Your task to perform on an android device: Add "logitech g pro" to the cart on bestbuy.com, then select checkout. Image 0: 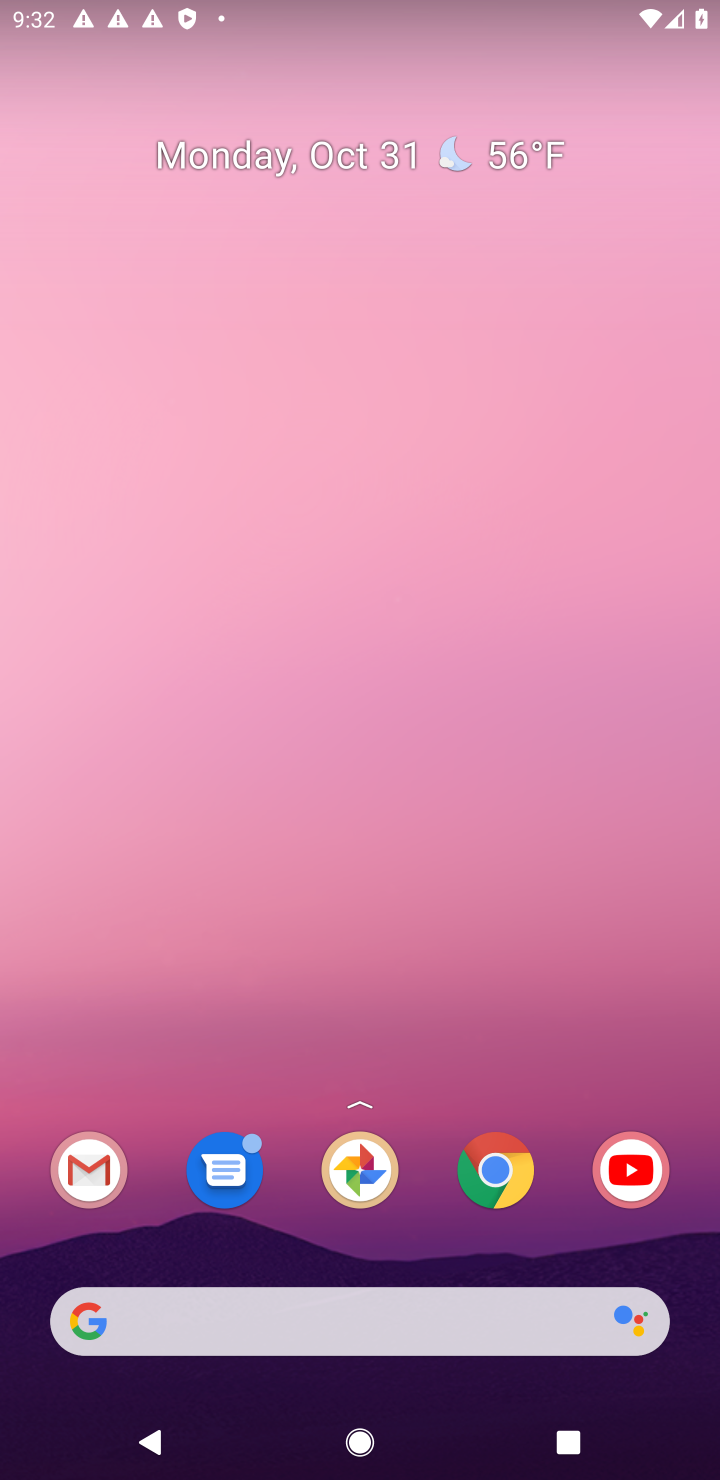
Step 0: drag from (365, 501) to (394, 423)
Your task to perform on an android device: Add "logitech g pro" to the cart on bestbuy.com, then select checkout. Image 1: 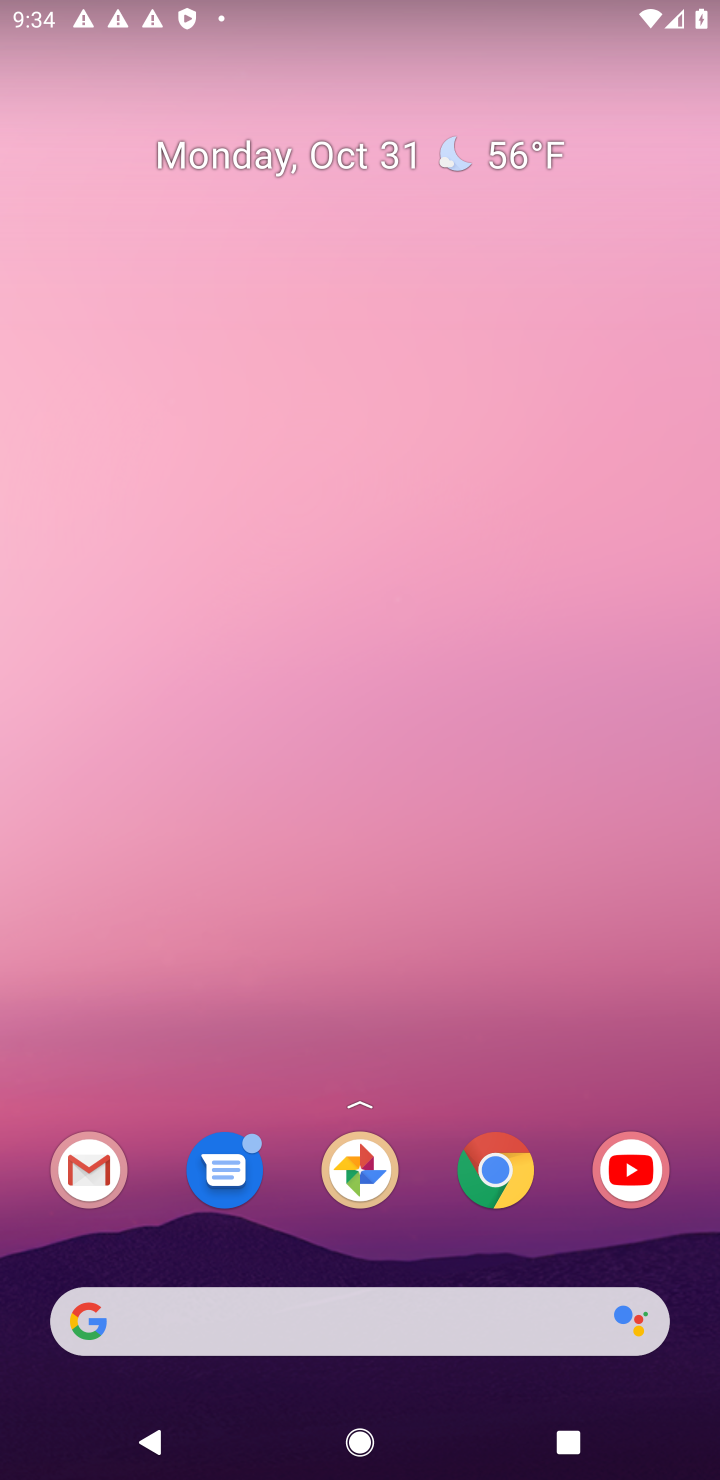
Step 1: click (254, 1329)
Your task to perform on an android device: Add "logitech g pro" to the cart on bestbuy.com, then select checkout. Image 2: 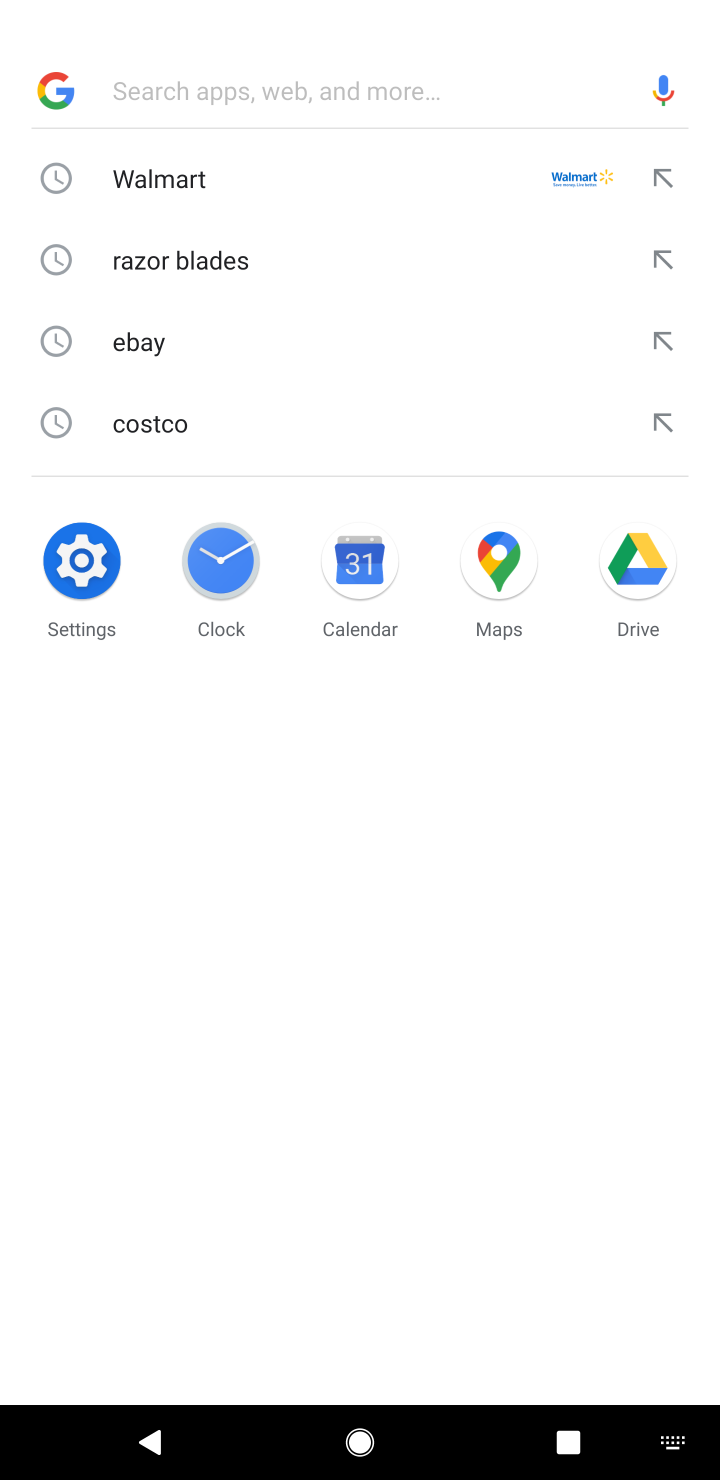
Step 2: type " bestbuy.com"
Your task to perform on an android device: Add "logitech g pro" to the cart on bestbuy.com, then select checkout. Image 3: 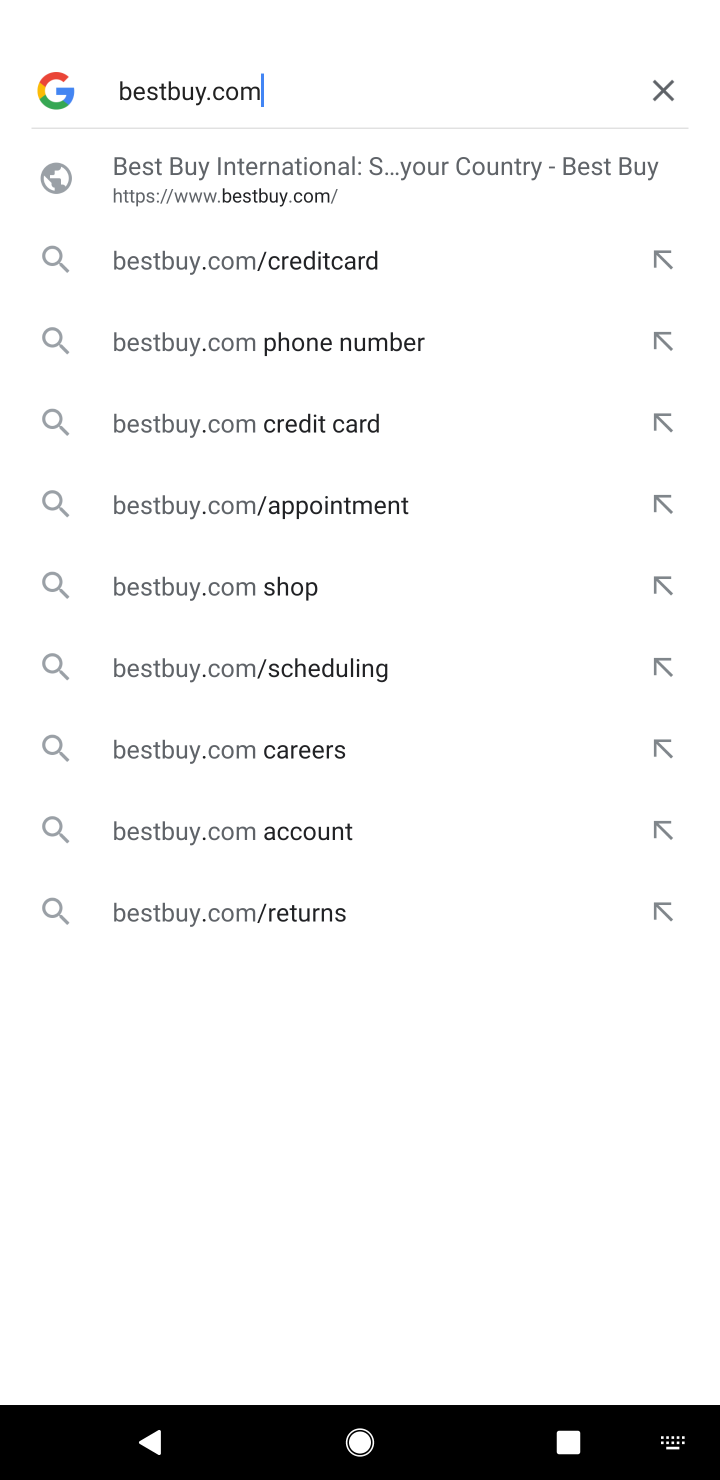
Step 3: click (255, 186)
Your task to perform on an android device: Add "logitech g pro" to the cart on bestbuy.com, then select checkout. Image 4: 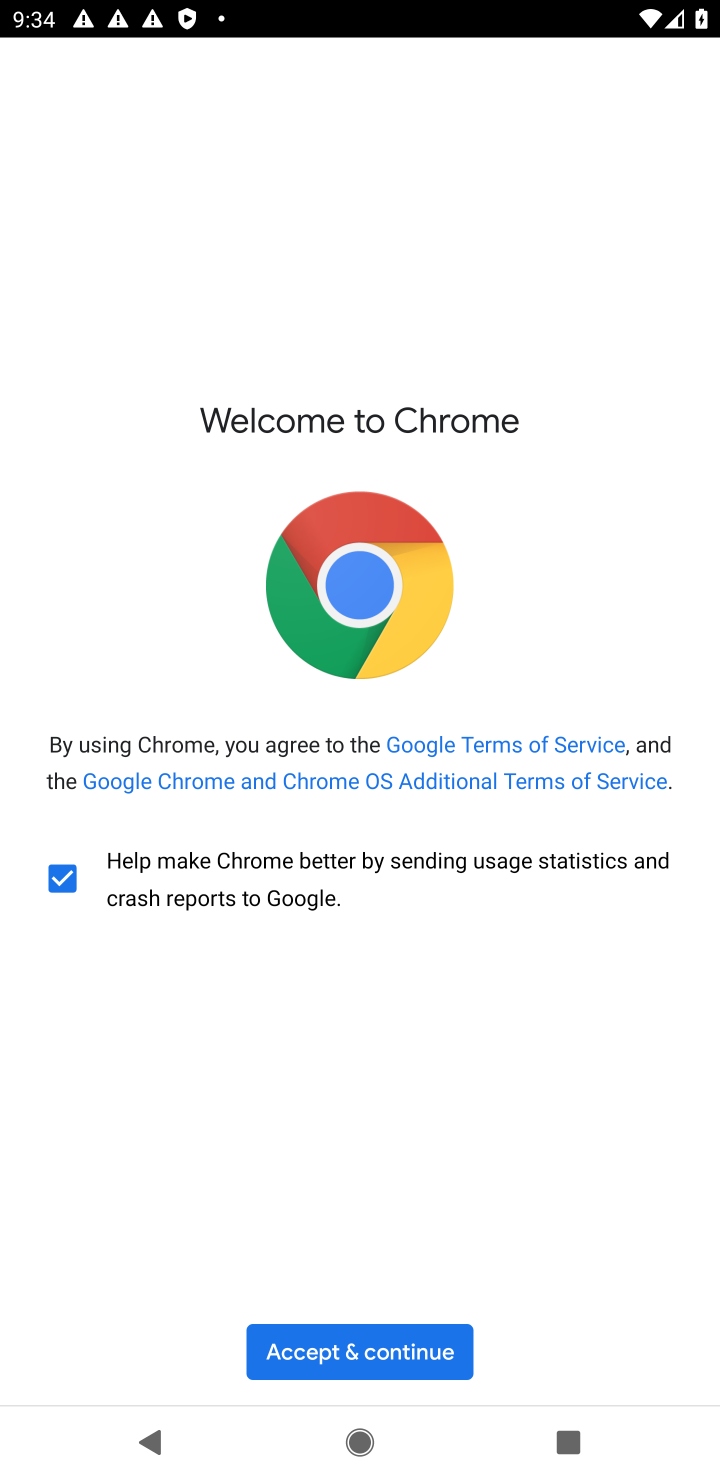
Step 4: click (309, 1350)
Your task to perform on an android device: Add "logitech g pro" to the cart on bestbuy.com, then select checkout. Image 5: 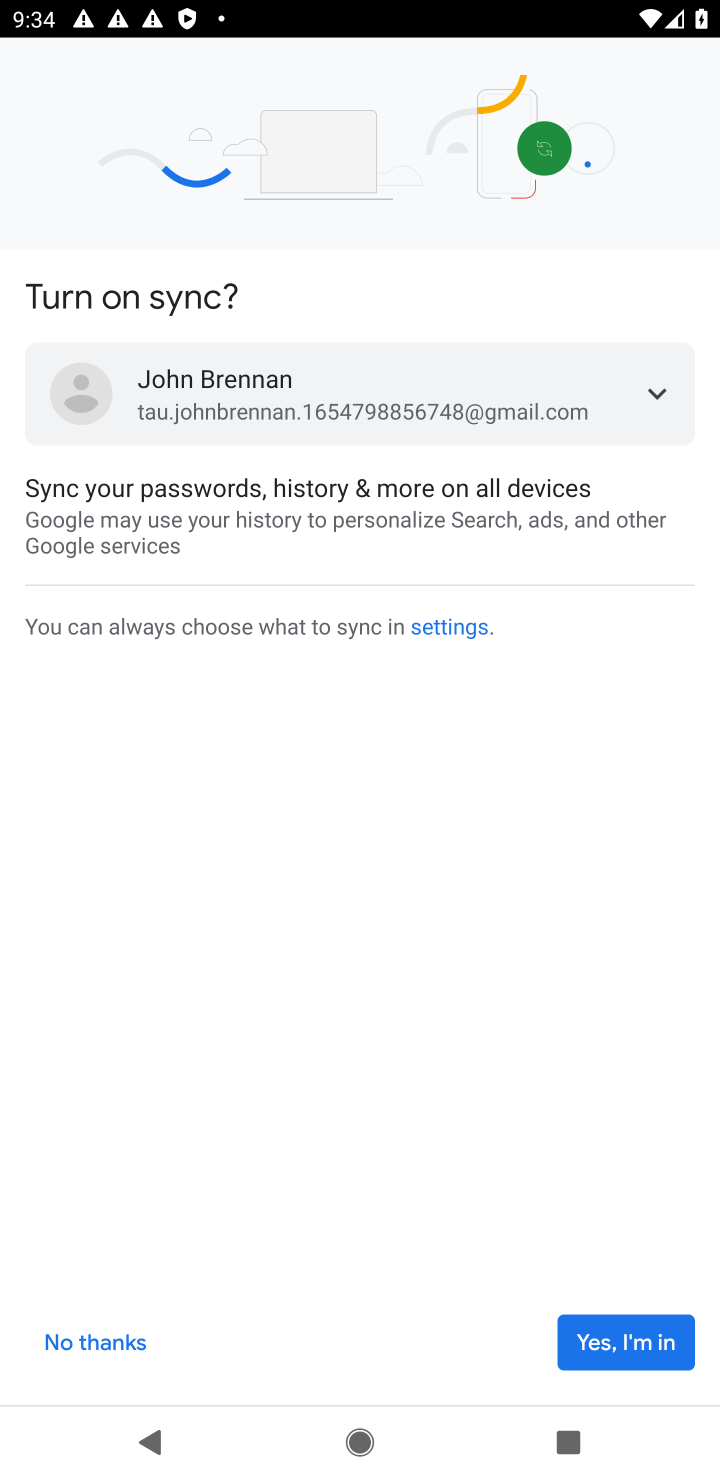
Step 5: click (597, 1320)
Your task to perform on an android device: Add "logitech g pro" to the cart on bestbuy.com, then select checkout. Image 6: 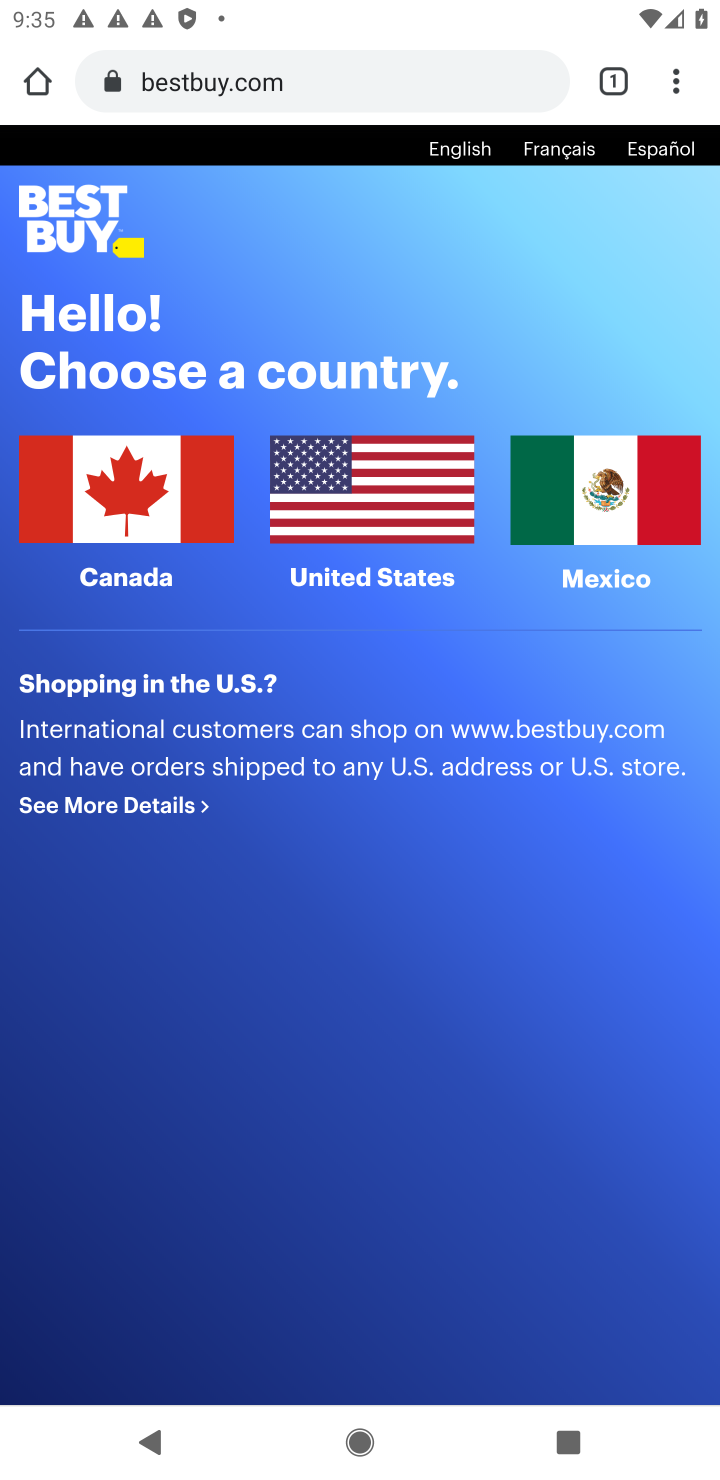
Step 6: click (312, 499)
Your task to perform on an android device: Add "logitech g pro" to the cart on bestbuy.com, then select checkout. Image 7: 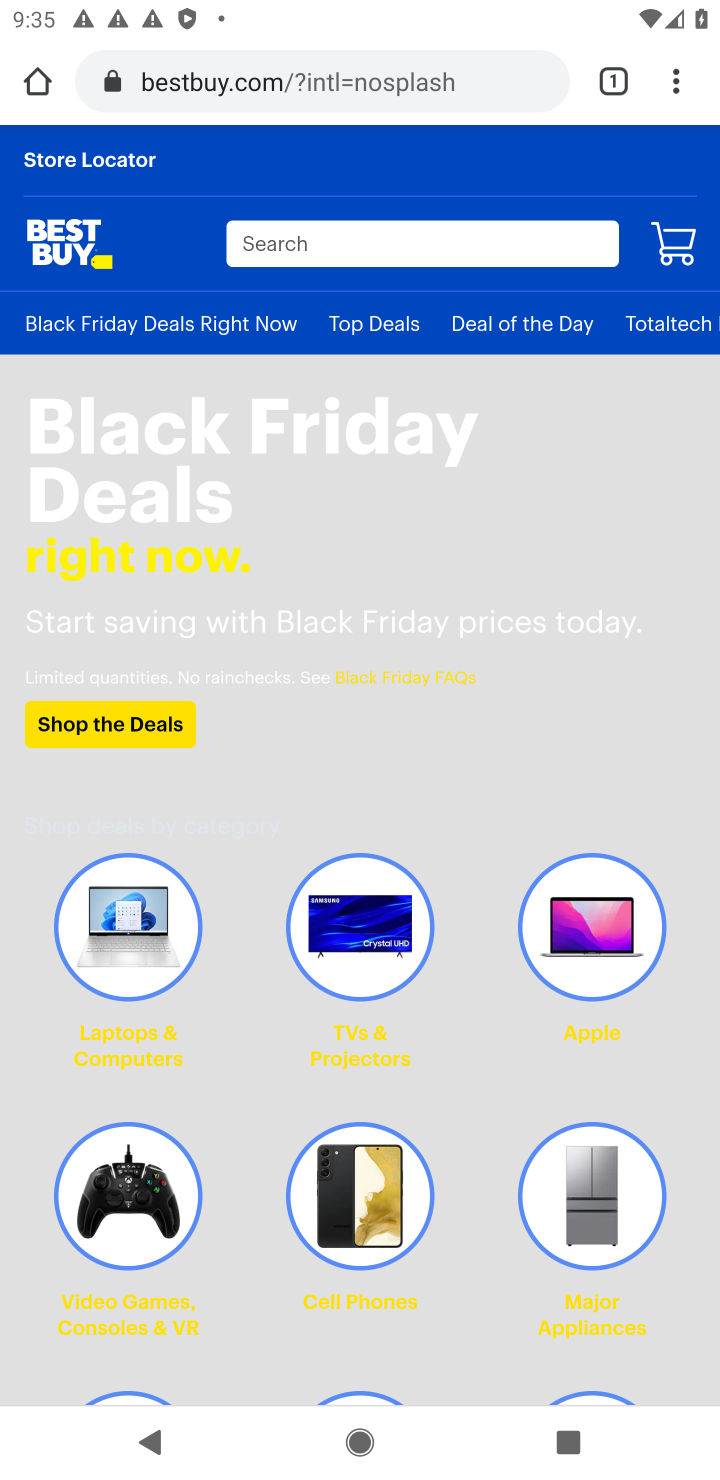
Step 7: click (410, 243)
Your task to perform on an android device: Add "logitech g pro" to the cart on bestbuy.com, then select checkout. Image 8: 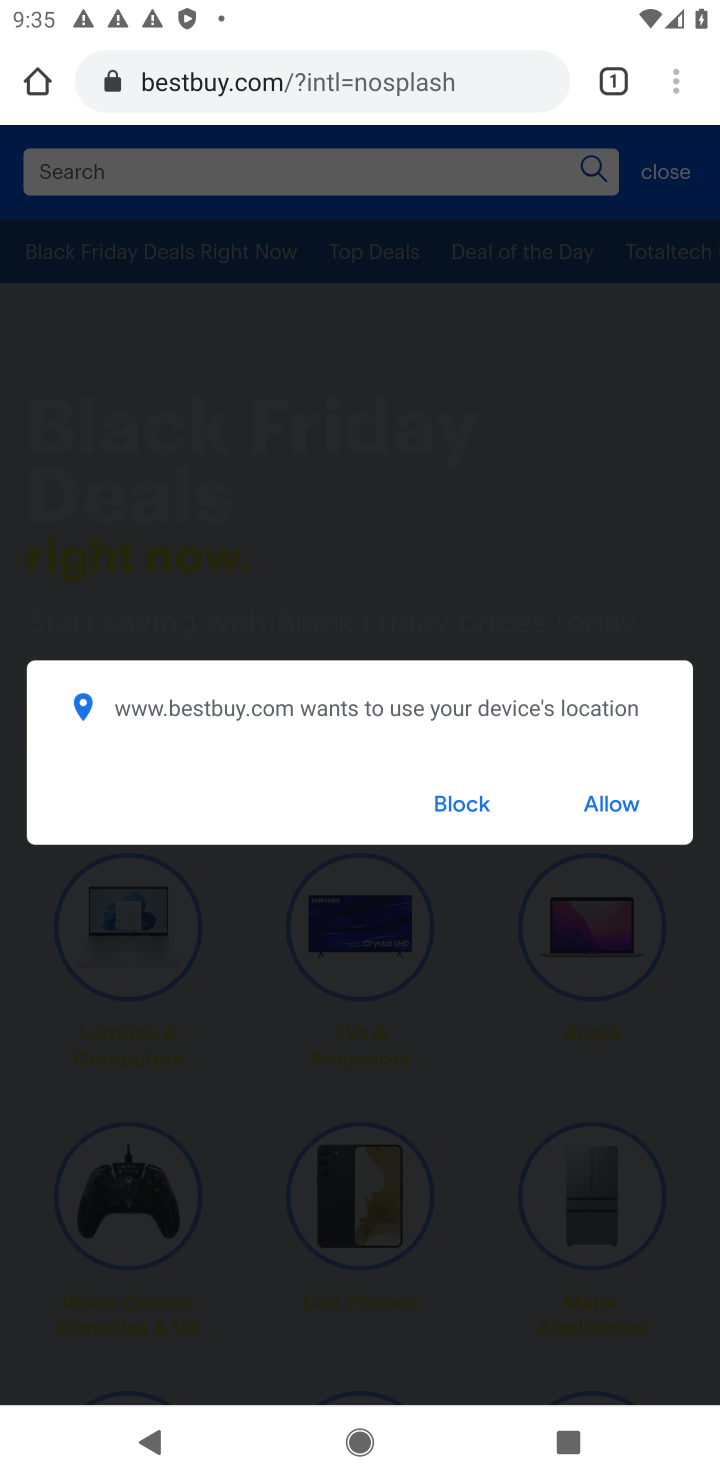
Step 8: click (456, 793)
Your task to perform on an android device: Add "logitech g pro" to the cart on bestbuy.com, then select checkout. Image 9: 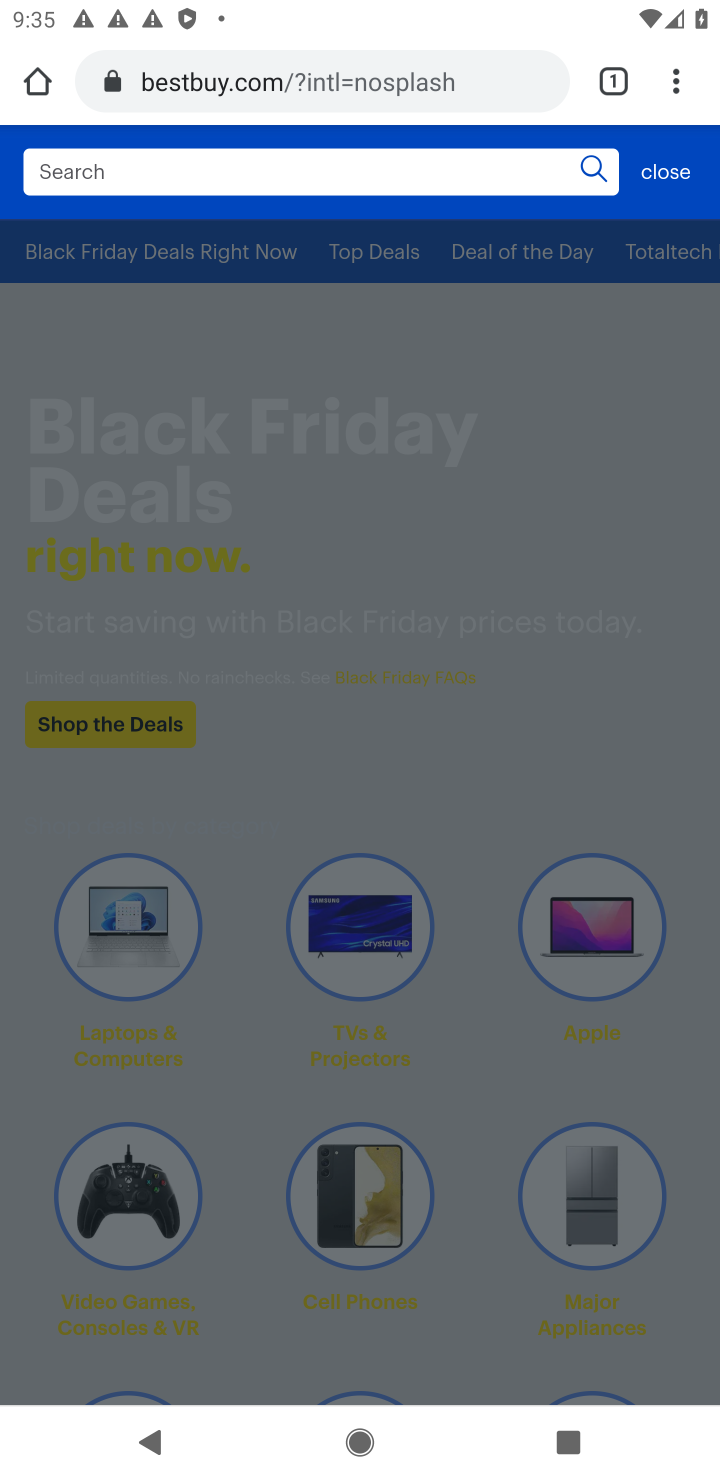
Step 9: click (343, 177)
Your task to perform on an android device: Add "logitech g pro" to the cart on bestbuy.com, then select checkout. Image 10: 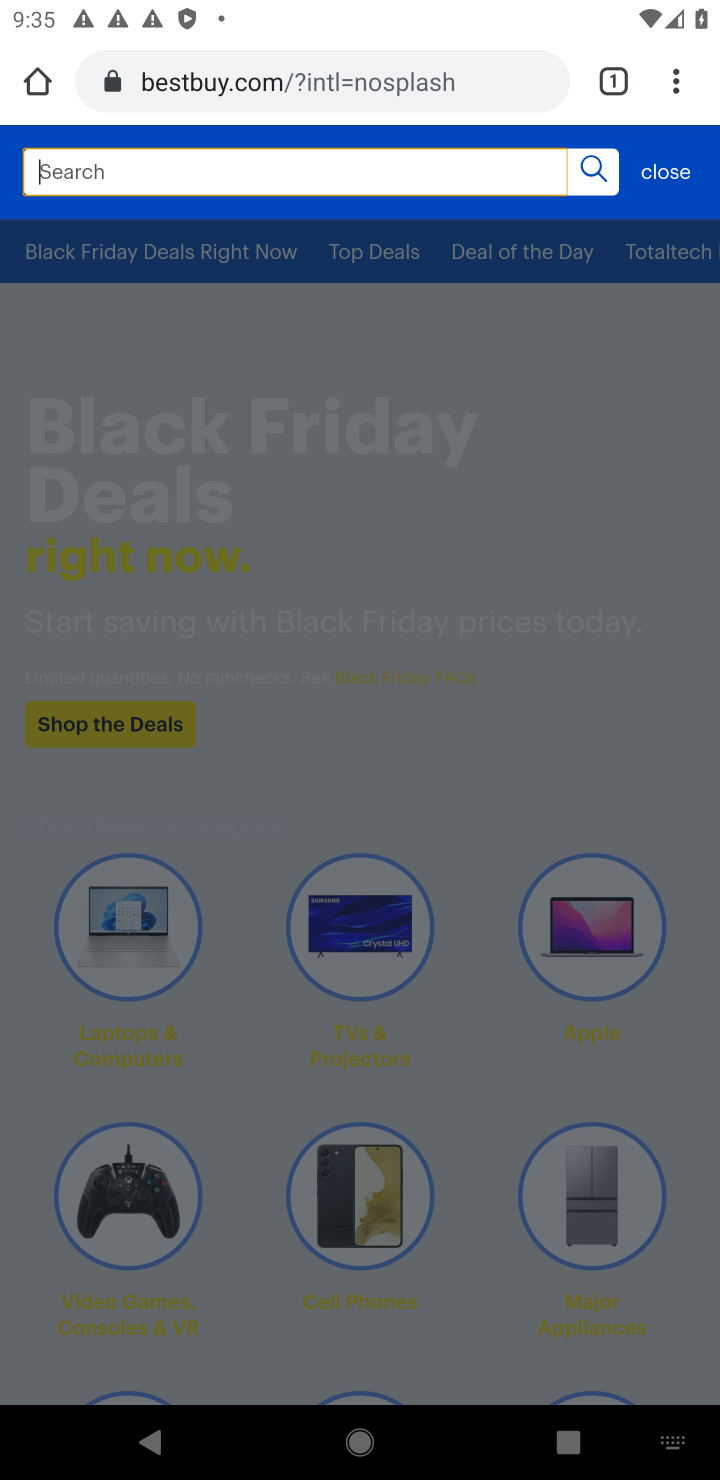
Step 10: type "logitech g pro"
Your task to perform on an android device: Add "logitech g pro" to the cart on bestbuy.com, then select checkout. Image 11: 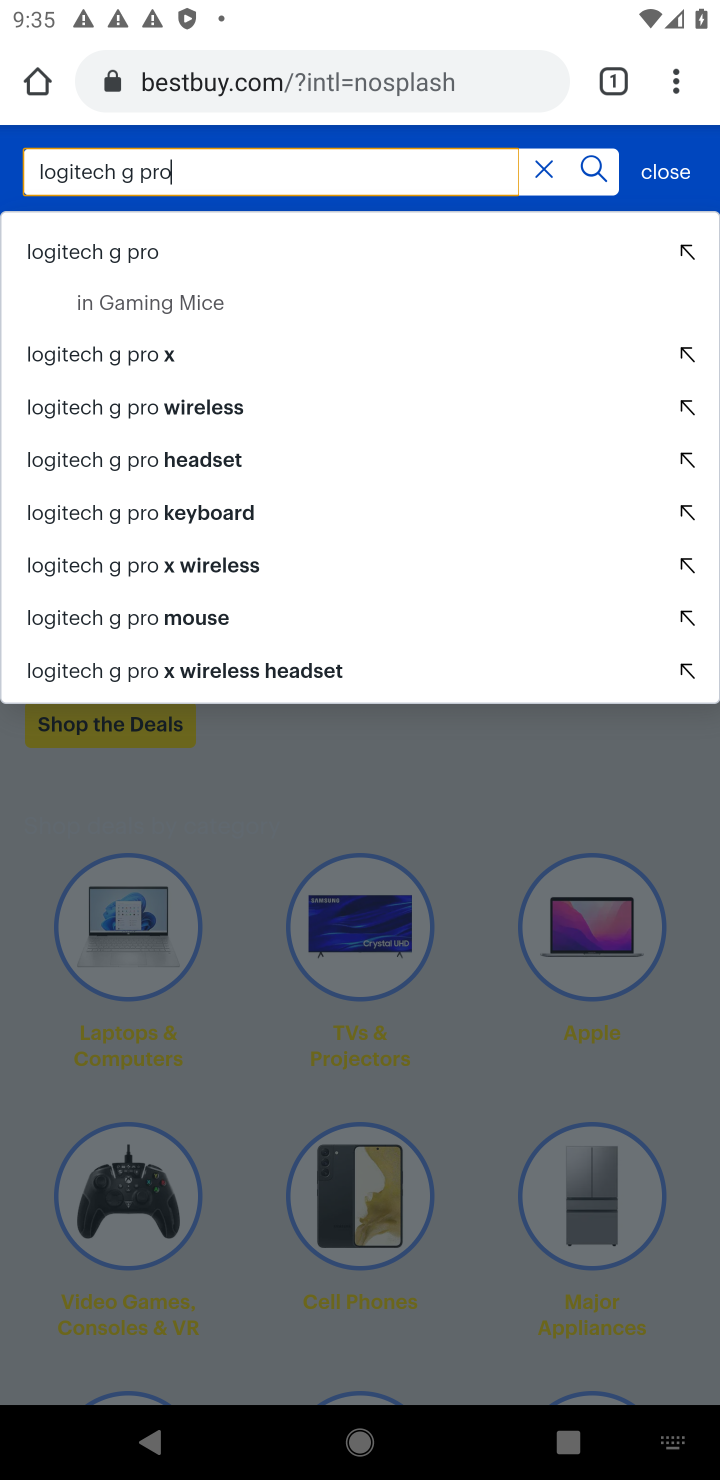
Step 11: click (74, 260)
Your task to perform on an android device: Add "logitech g pro" to the cart on bestbuy.com, then select checkout. Image 12: 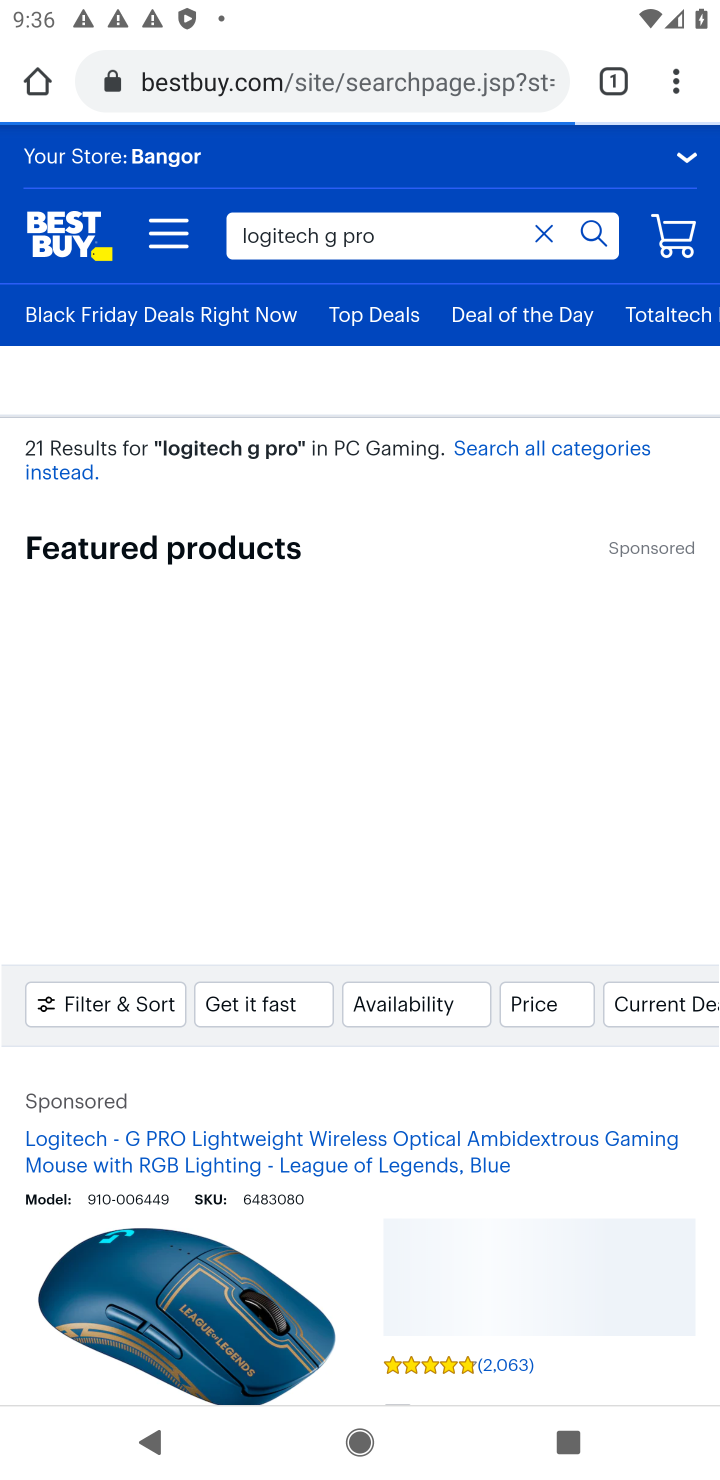
Step 12: click (163, 1366)
Your task to perform on an android device: Add "logitech g pro" to the cart on bestbuy.com, then select checkout. Image 13: 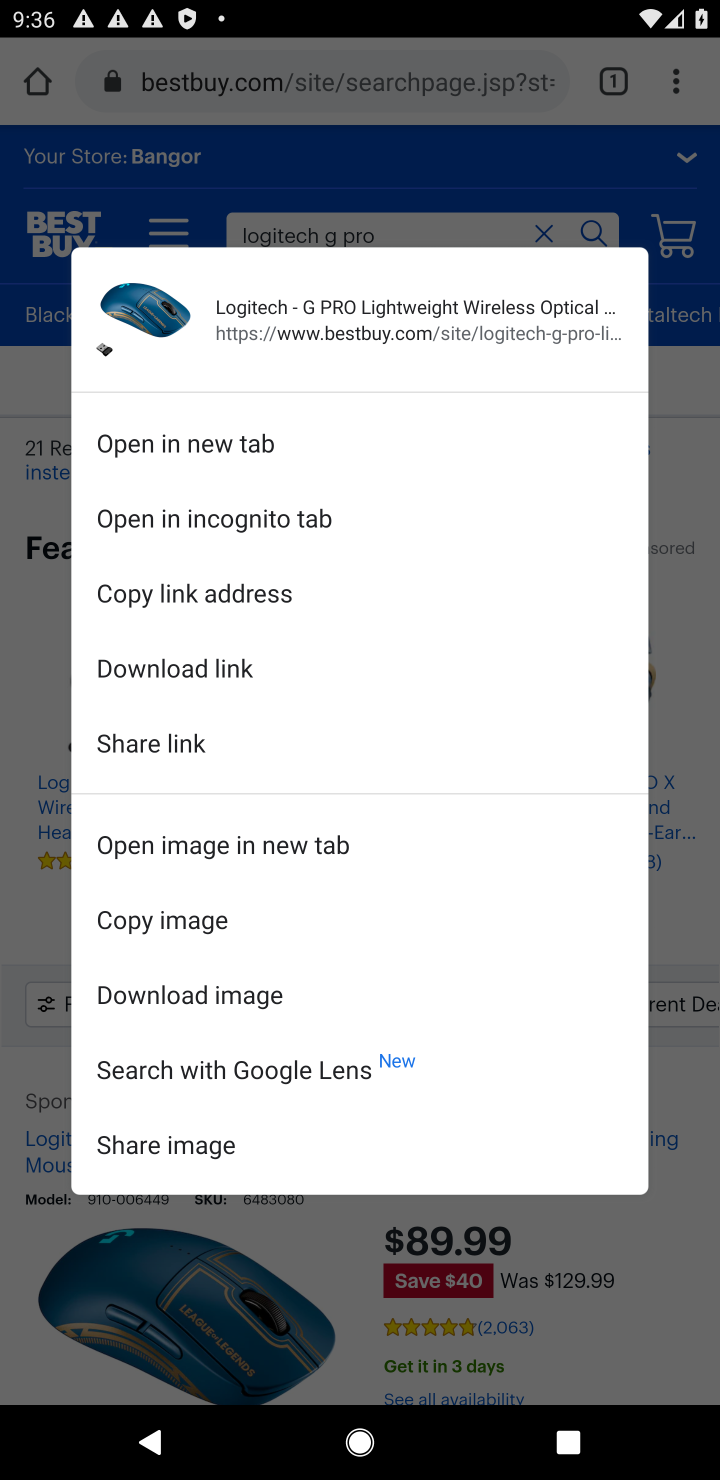
Step 13: click (218, 1207)
Your task to perform on an android device: Add "logitech g pro" to the cart on bestbuy.com, then select checkout. Image 14: 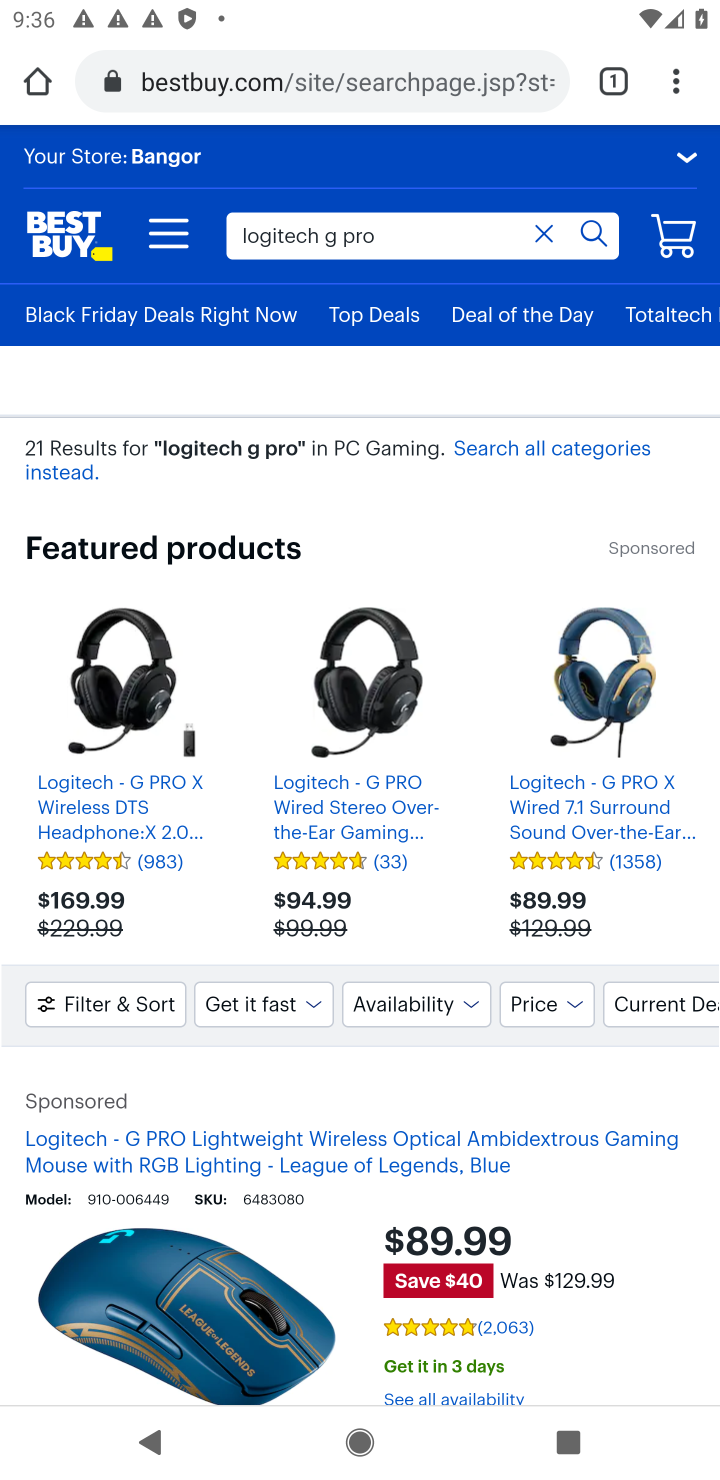
Step 14: click (106, 802)
Your task to perform on an android device: Add "logitech g pro" to the cart on bestbuy.com, then select checkout. Image 15: 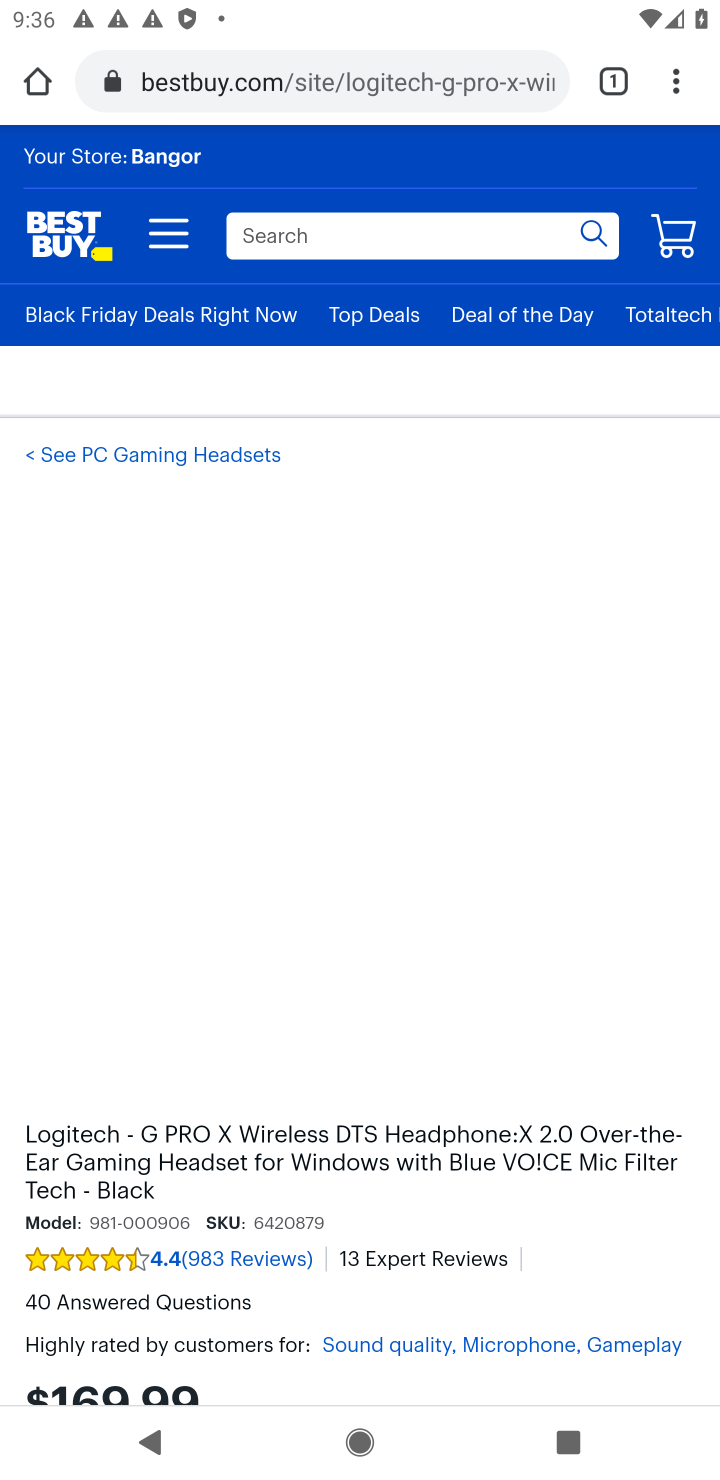
Step 15: drag from (184, 1169) to (268, 513)
Your task to perform on an android device: Add "logitech g pro" to the cart on bestbuy.com, then select checkout. Image 16: 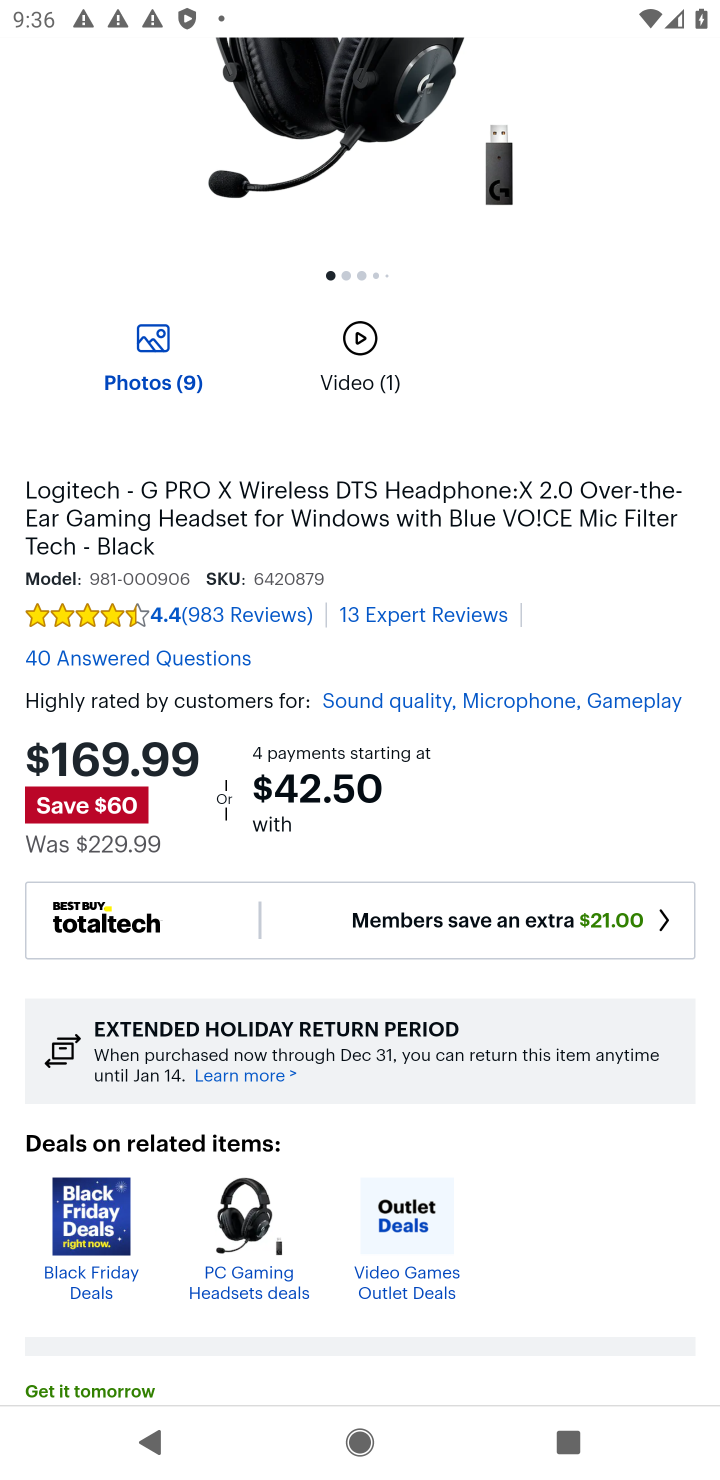
Step 16: drag from (187, 950) to (318, 567)
Your task to perform on an android device: Add "logitech g pro" to the cart on bestbuy.com, then select checkout. Image 17: 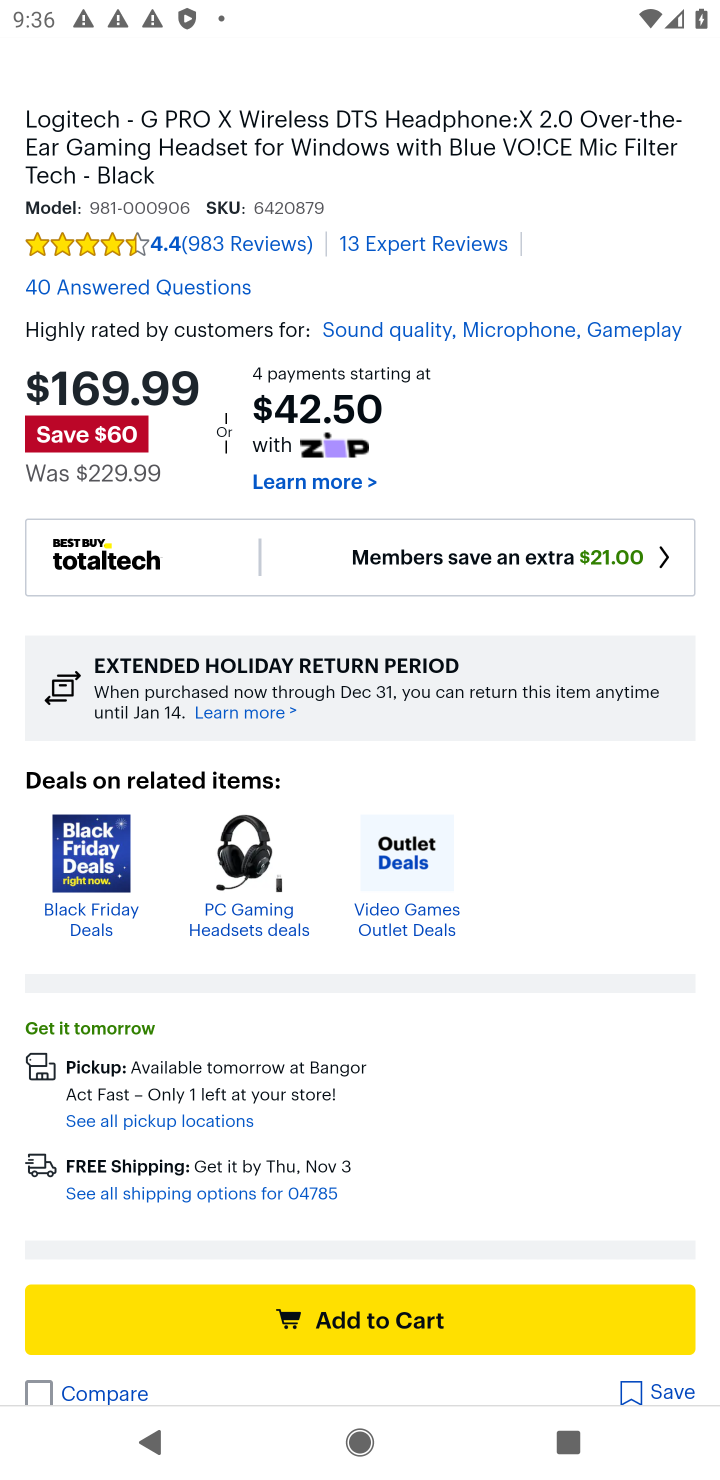
Step 17: click (354, 1308)
Your task to perform on an android device: Add "logitech g pro" to the cart on bestbuy.com, then select checkout. Image 18: 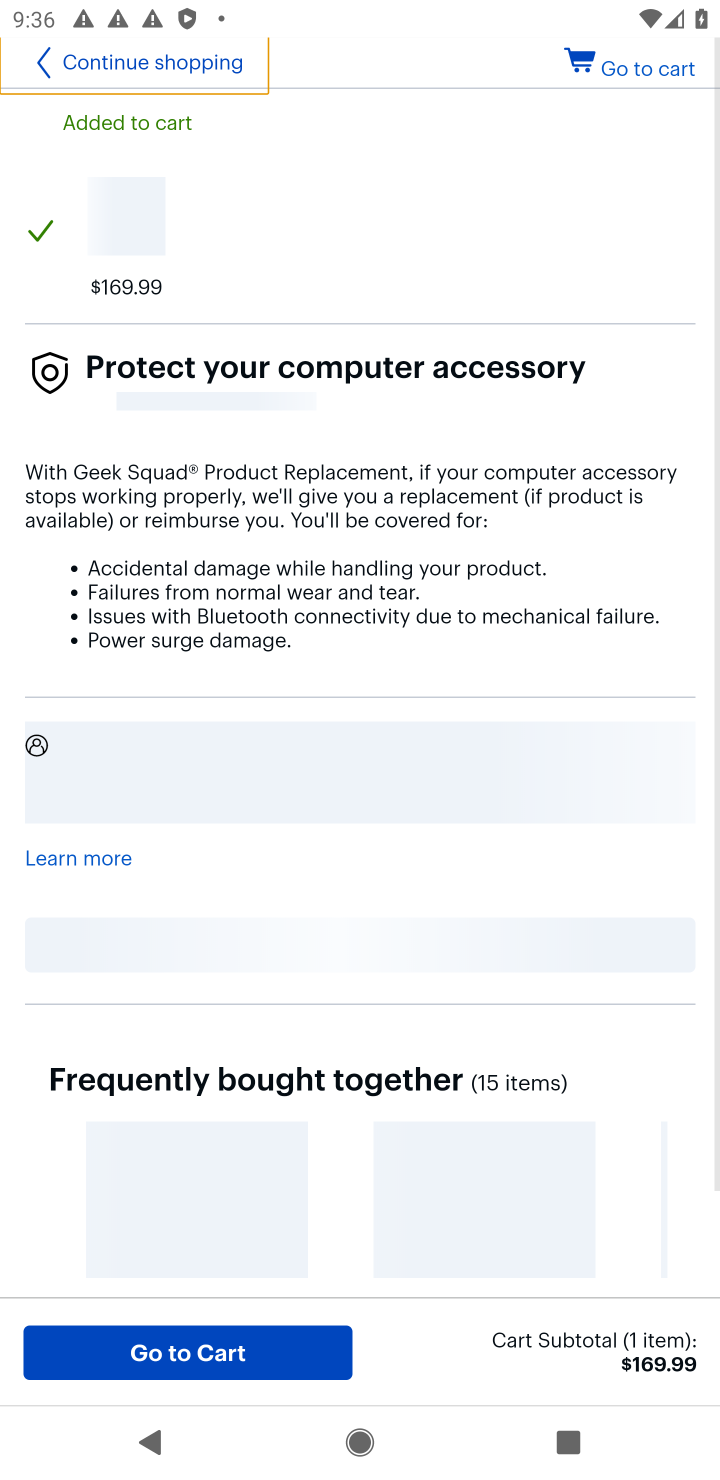
Step 18: click (600, 61)
Your task to perform on an android device: Add "logitech g pro" to the cart on bestbuy.com, then select checkout. Image 19: 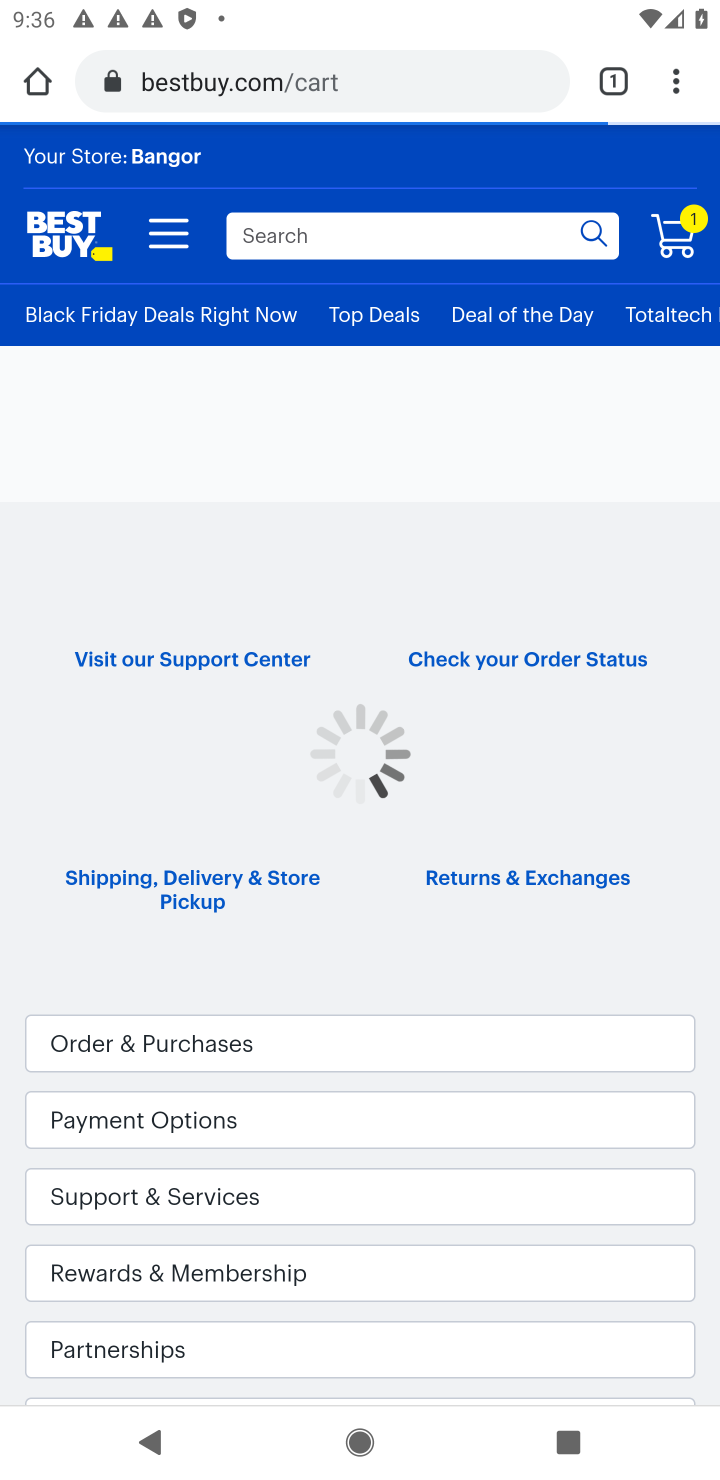
Step 19: drag from (399, 903) to (452, 622)
Your task to perform on an android device: Add "logitech g pro" to the cart on bestbuy.com, then select checkout. Image 20: 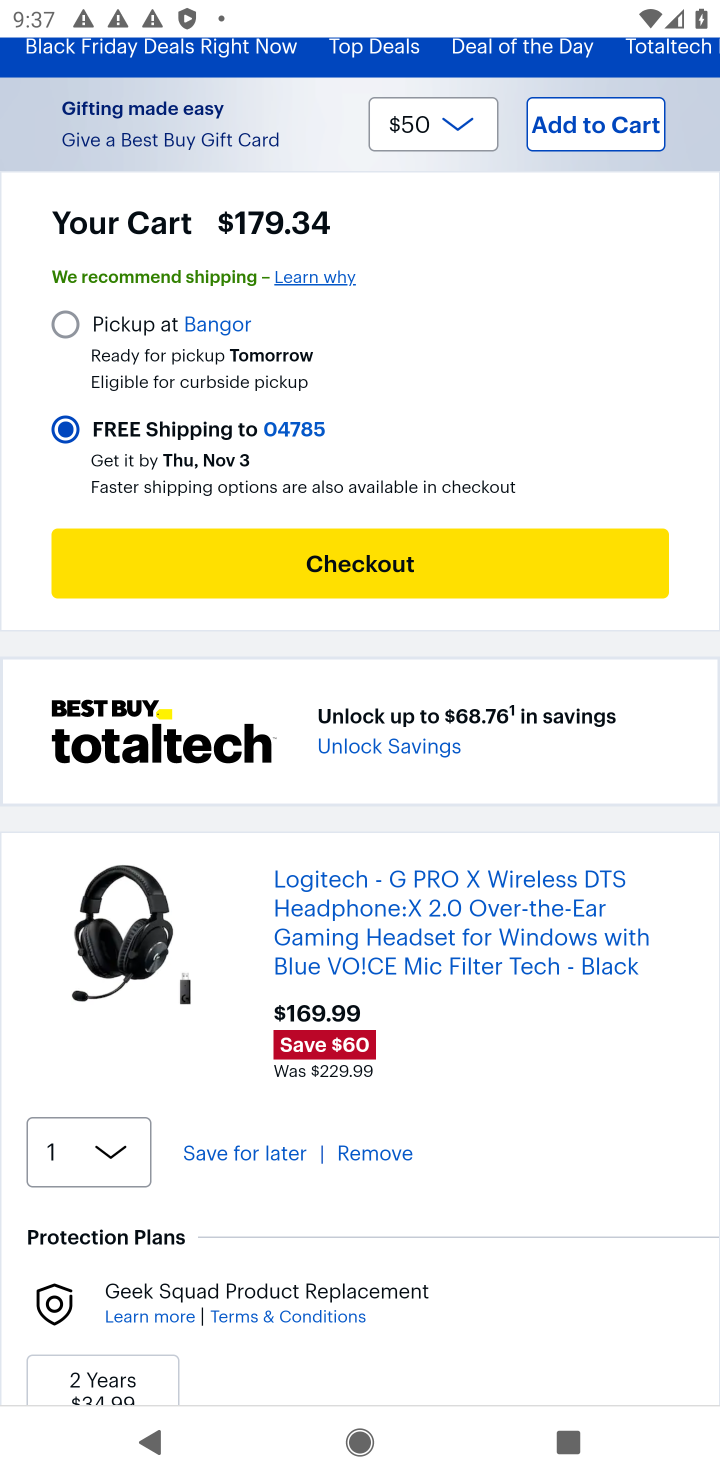
Step 20: click (403, 569)
Your task to perform on an android device: Add "logitech g pro" to the cart on bestbuy.com, then select checkout. Image 21: 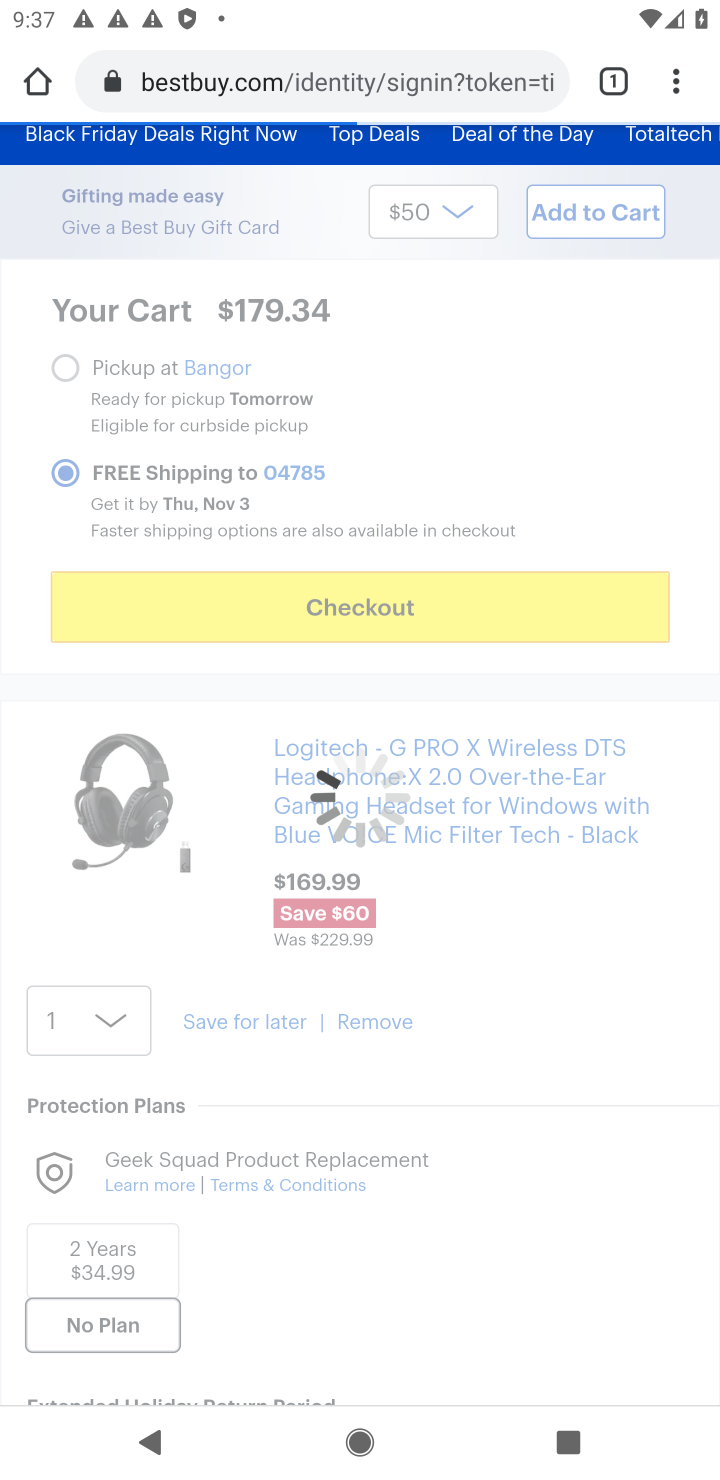
Step 21: task complete